Your task to perform on an android device: turn on showing notifications on the lock screen Image 0: 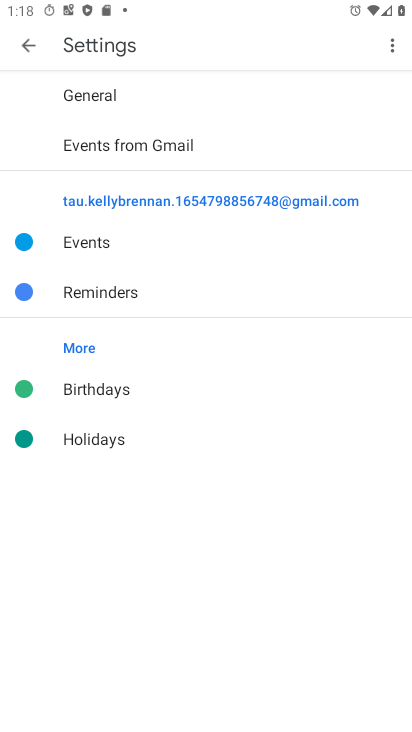
Step 0: press home button
Your task to perform on an android device: turn on showing notifications on the lock screen Image 1: 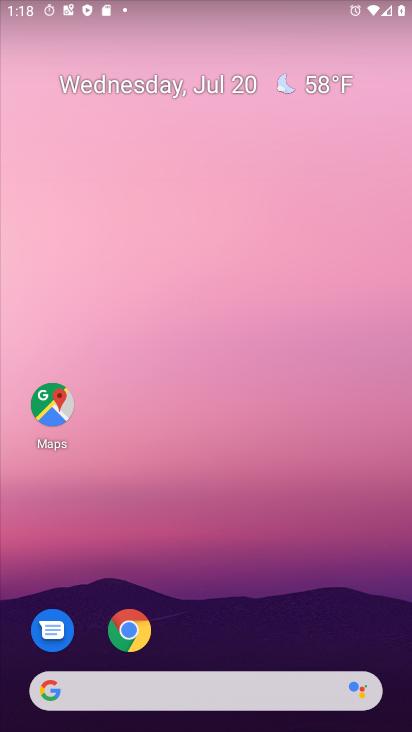
Step 1: drag from (201, 690) to (283, 132)
Your task to perform on an android device: turn on showing notifications on the lock screen Image 2: 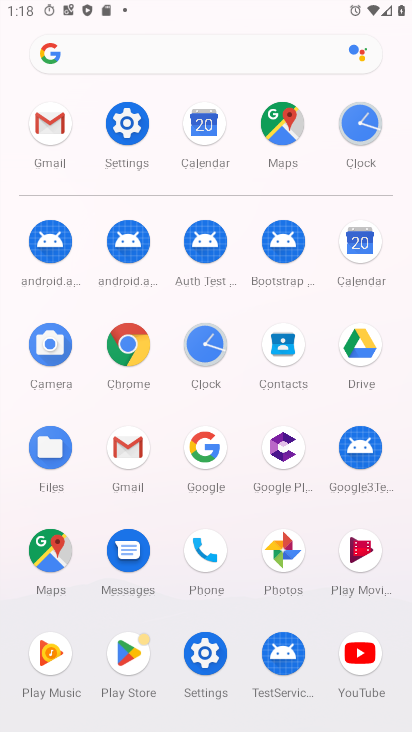
Step 2: click (135, 125)
Your task to perform on an android device: turn on showing notifications on the lock screen Image 3: 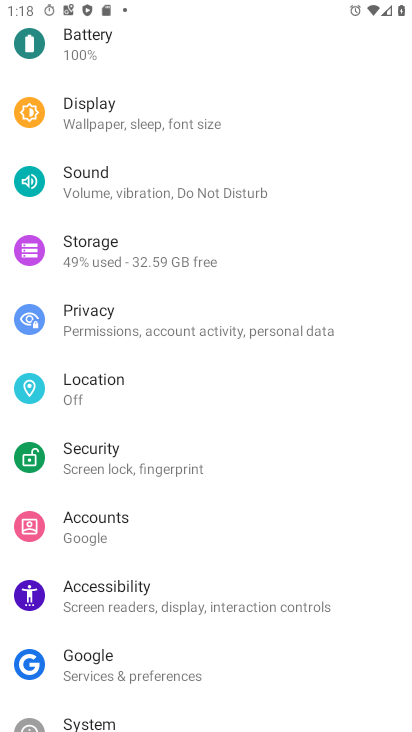
Step 3: drag from (329, 89) to (356, 610)
Your task to perform on an android device: turn on showing notifications on the lock screen Image 4: 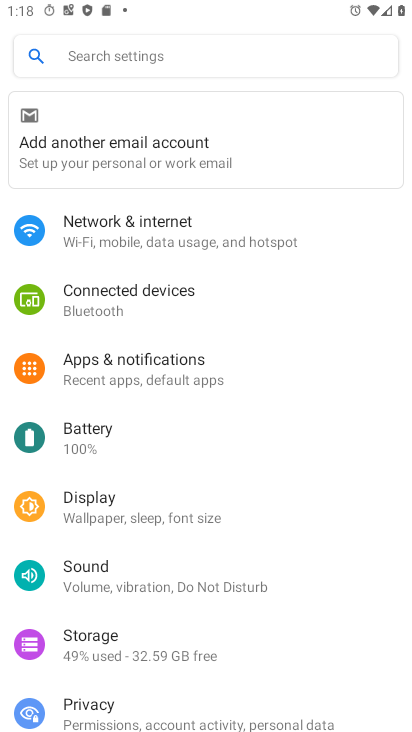
Step 4: click (143, 367)
Your task to perform on an android device: turn on showing notifications on the lock screen Image 5: 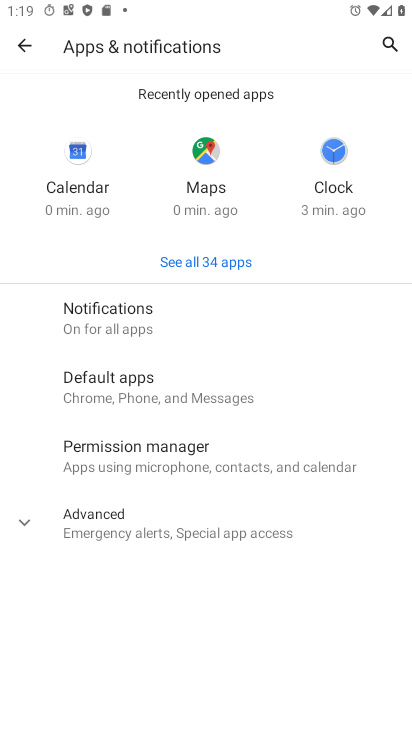
Step 5: click (120, 318)
Your task to perform on an android device: turn on showing notifications on the lock screen Image 6: 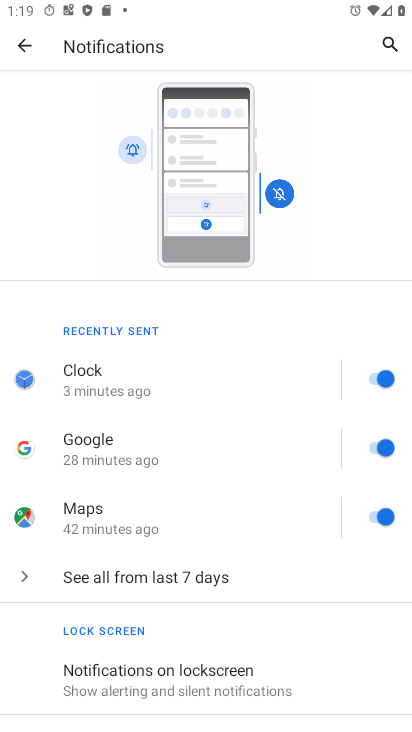
Step 6: drag from (207, 551) to (328, 306)
Your task to perform on an android device: turn on showing notifications on the lock screen Image 7: 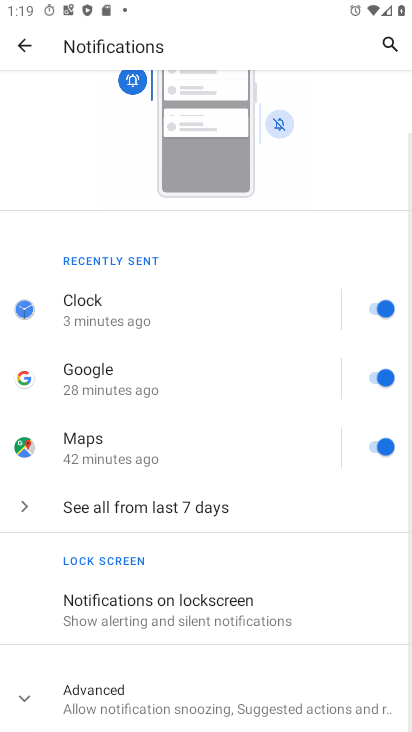
Step 7: click (191, 602)
Your task to perform on an android device: turn on showing notifications on the lock screen Image 8: 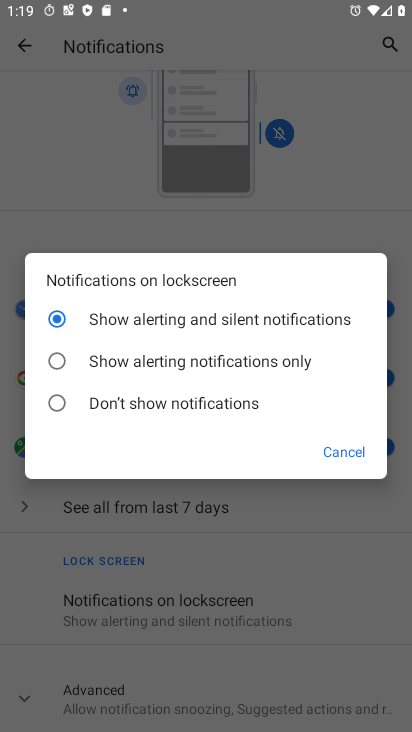
Step 8: task complete